Your task to perform on an android device: toggle javascript in the chrome app Image 0: 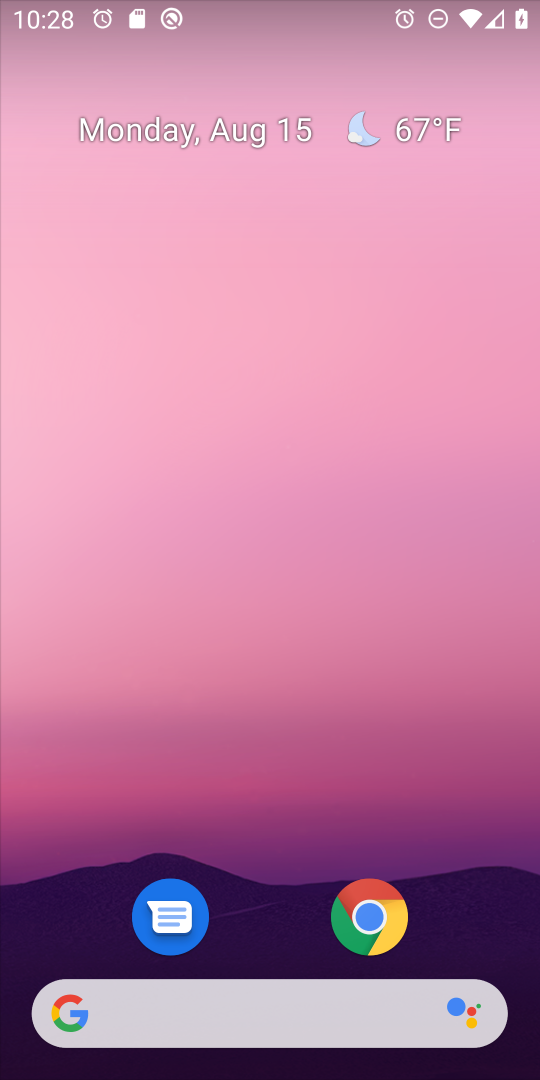
Step 0: click (367, 907)
Your task to perform on an android device: toggle javascript in the chrome app Image 1: 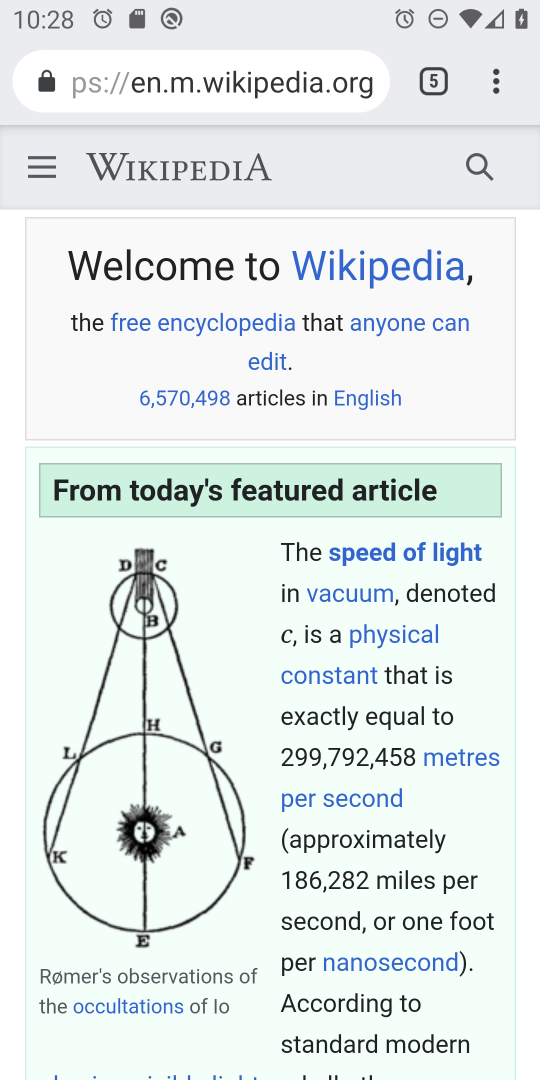
Step 1: press back button
Your task to perform on an android device: toggle javascript in the chrome app Image 2: 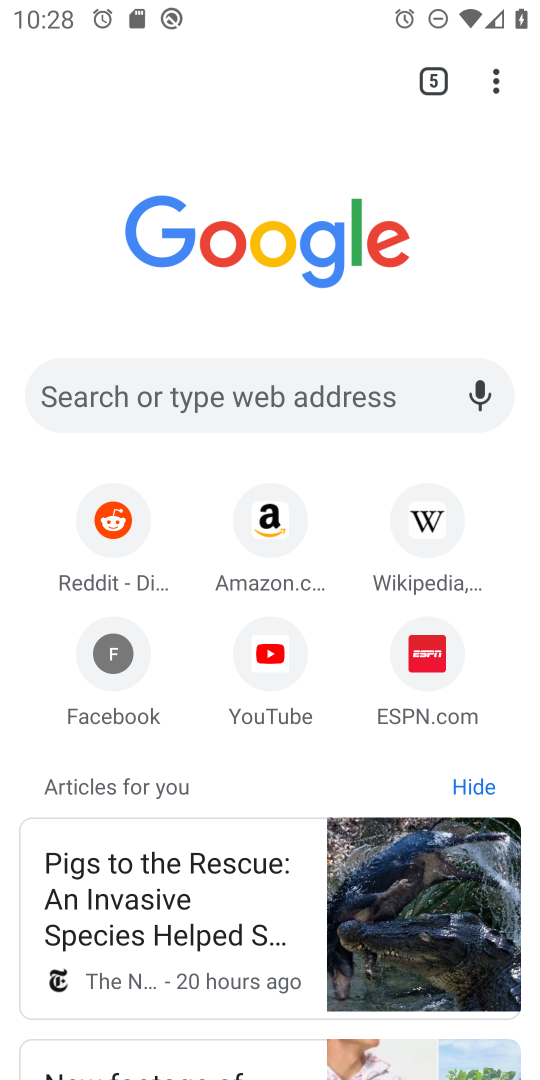
Step 2: click (497, 86)
Your task to perform on an android device: toggle javascript in the chrome app Image 3: 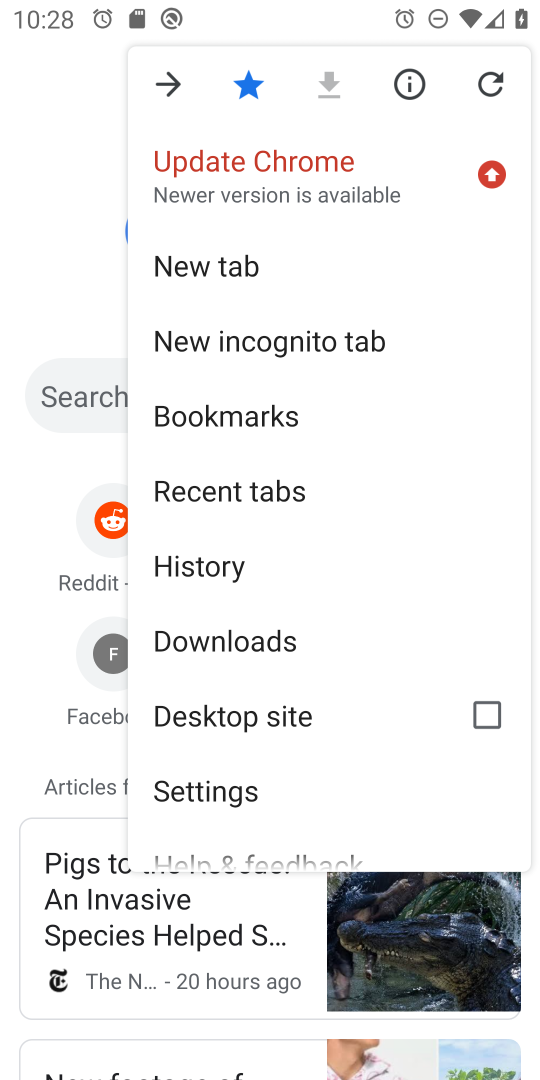
Step 3: click (218, 788)
Your task to perform on an android device: toggle javascript in the chrome app Image 4: 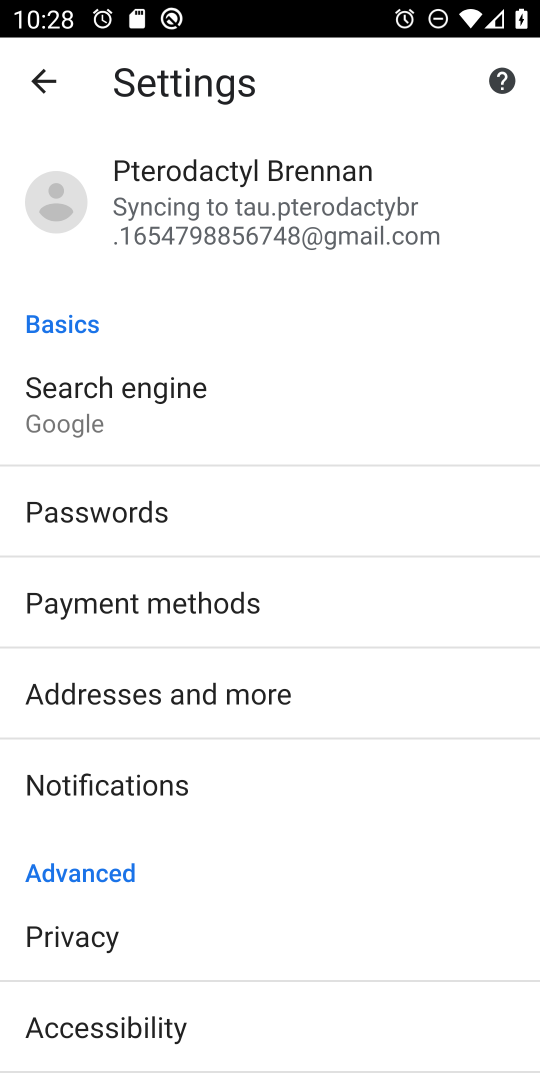
Step 4: drag from (302, 868) to (304, 218)
Your task to perform on an android device: toggle javascript in the chrome app Image 5: 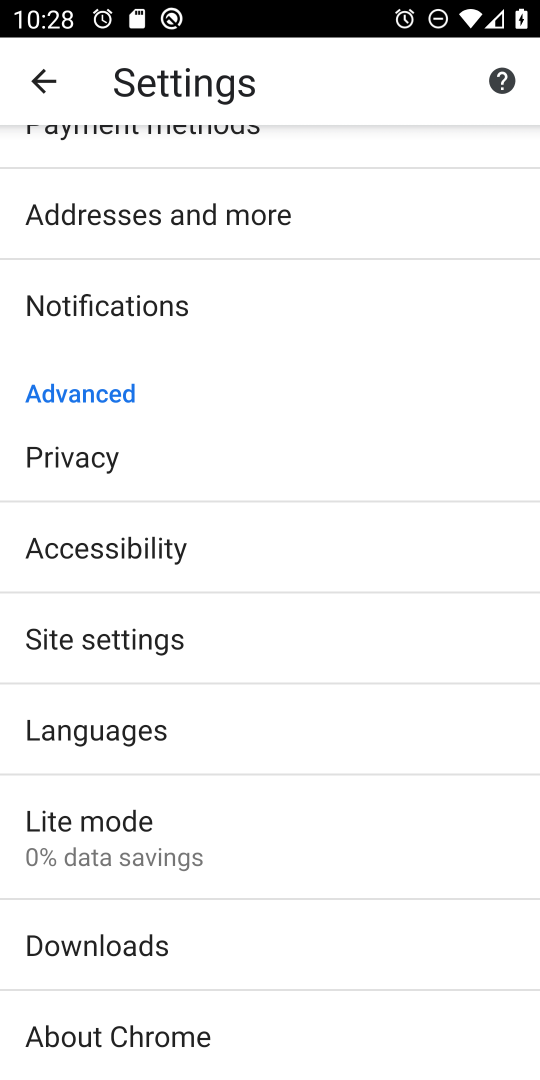
Step 5: click (191, 639)
Your task to perform on an android device: toggle javascript in the chrome app Image 6: 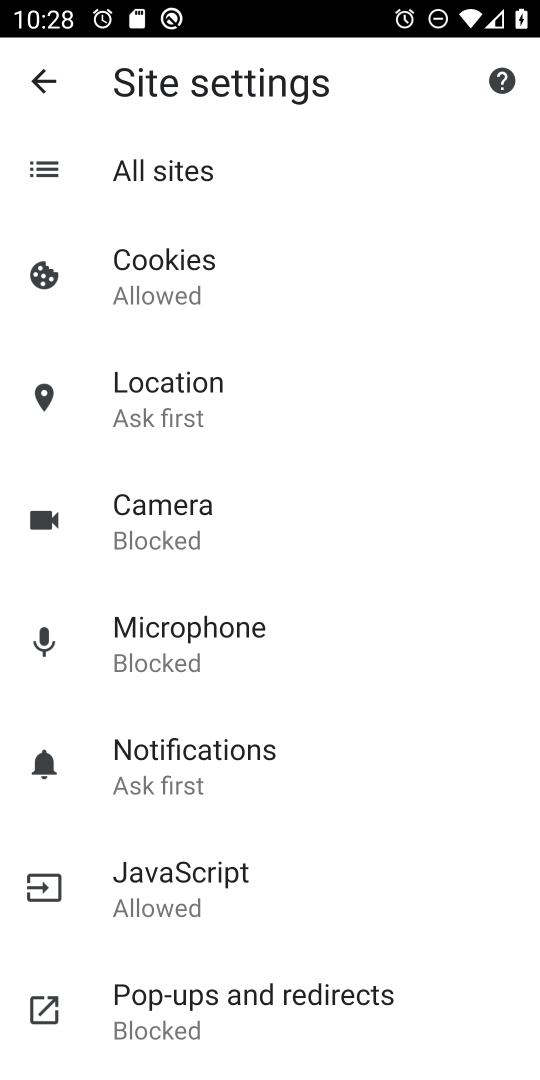
Step 6: click (224, 874)
Your task to perform on an android device: toggle javascript in the chrome app Image 7: 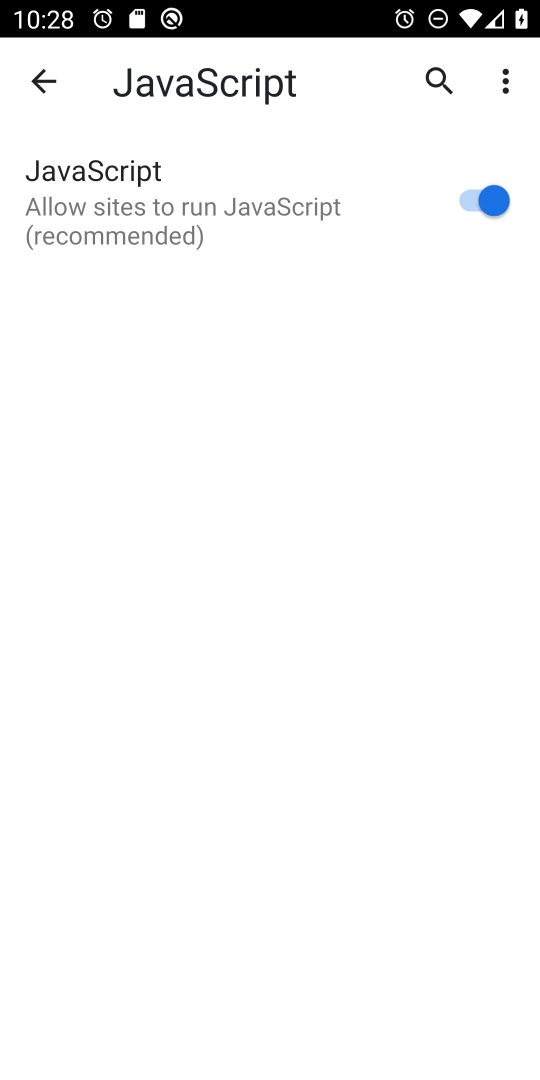
Step 7: click (475, 194)
Your task to perform on an android device: toggle javascript in the chrome app Image 8: 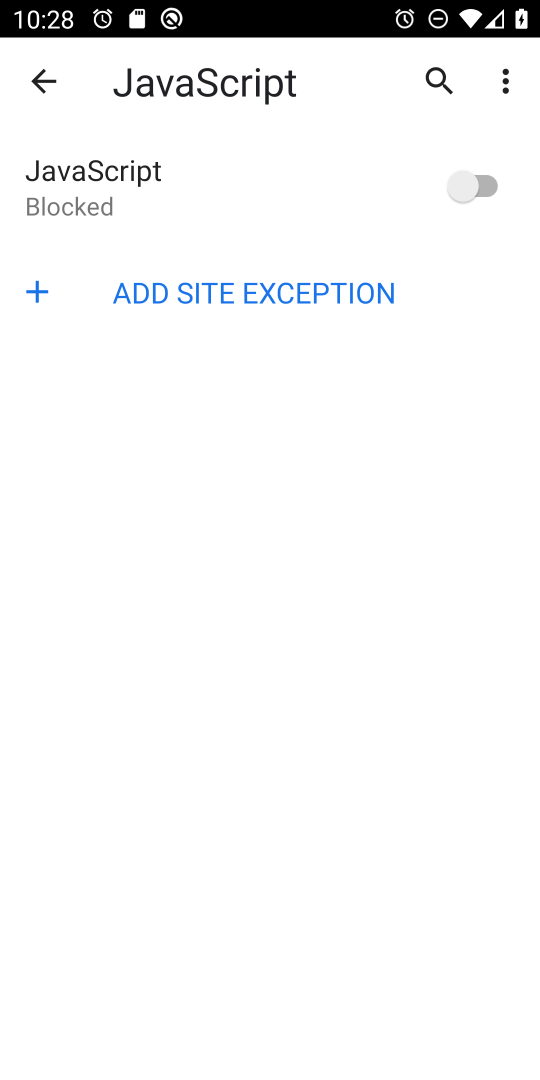
Step 8: task complete